Your task to perform on an android device: change text size in settings app Image 0: 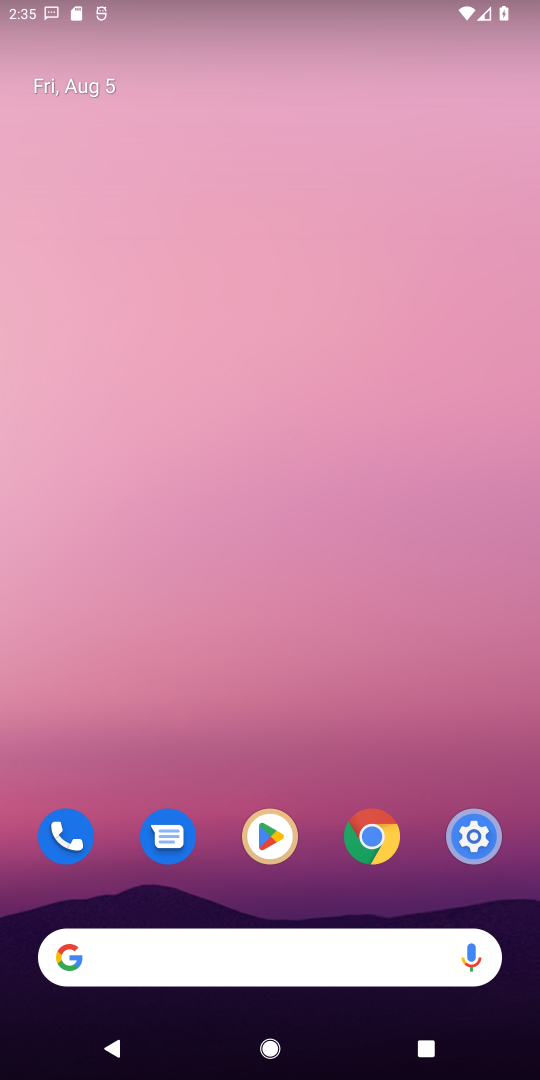
Step 0: drag from (241, 860) to (87, 71)
Your task to perform on an android device: change text size in settings app Image 1: 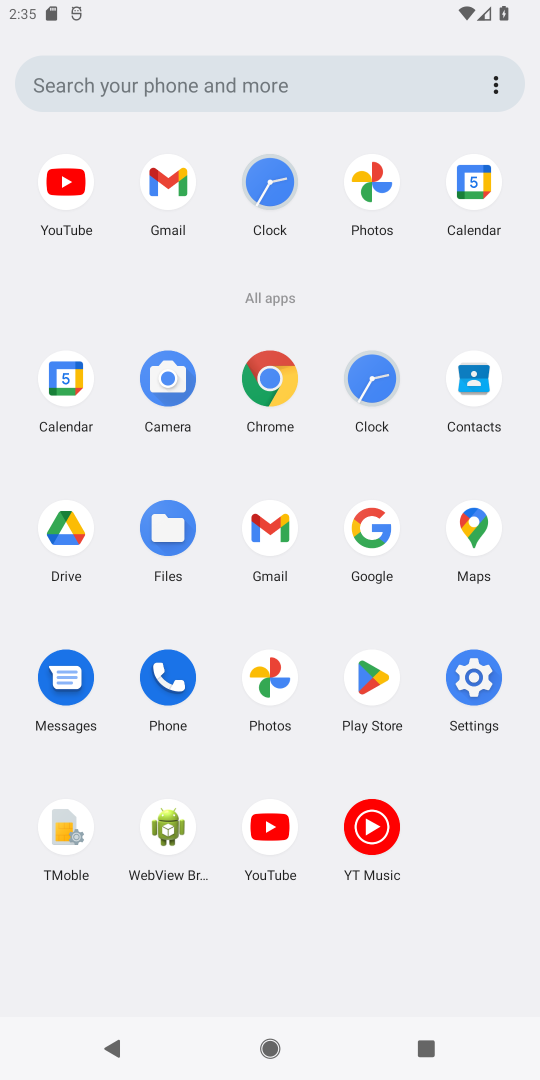
Step 1: click (495, 681)
Your task to perform on an android device: change text size in settings app Image 2: 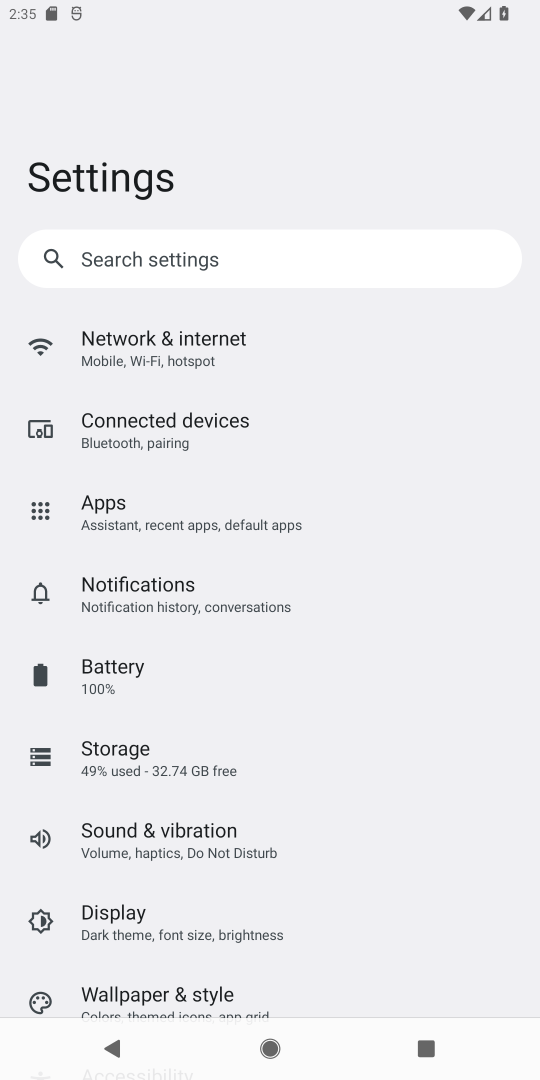
Step 2: click (200, 912)
Your task to perform on an android device: change text size in settings app Image 3: 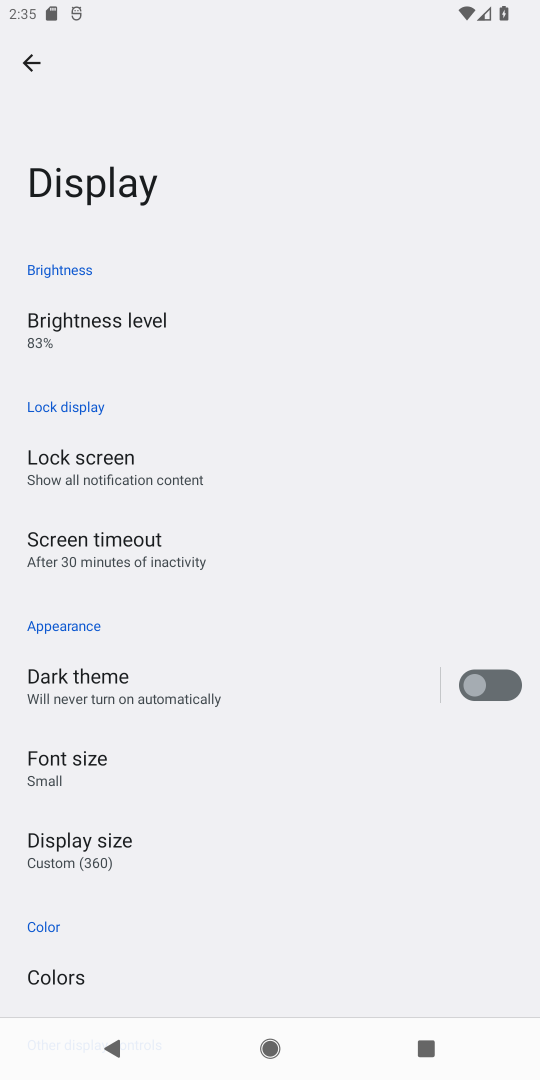
Step 3: click (116, 781)
Your task to perform on an android device: change text size in settings app Image 4: 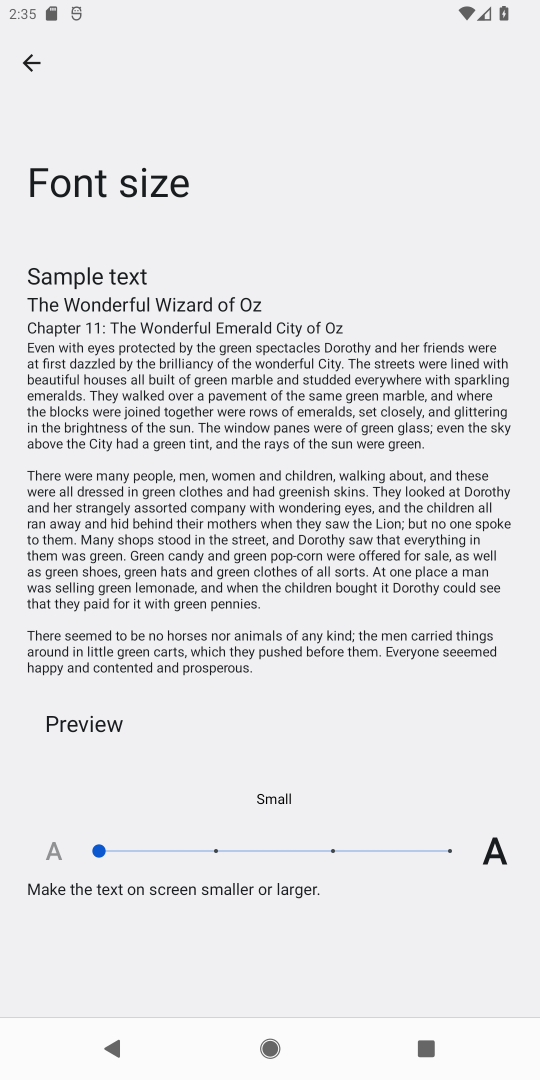
Step 4: click (301, 836)
Your task to perform on an android device: change text size in settings app Image 5: 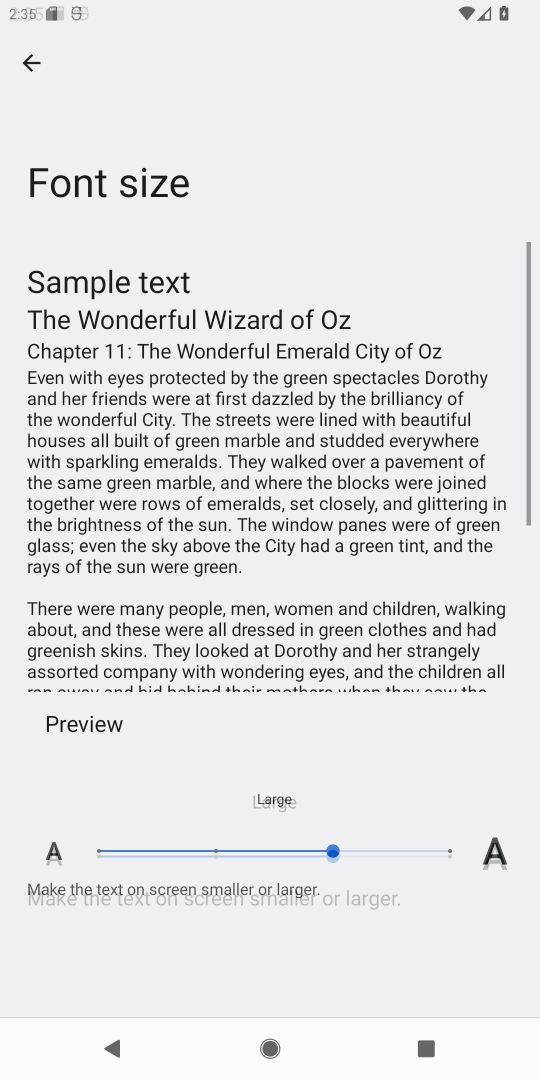
Step 5: task complete